Your task to perform on an android device: turn on sleep mode Image 0: 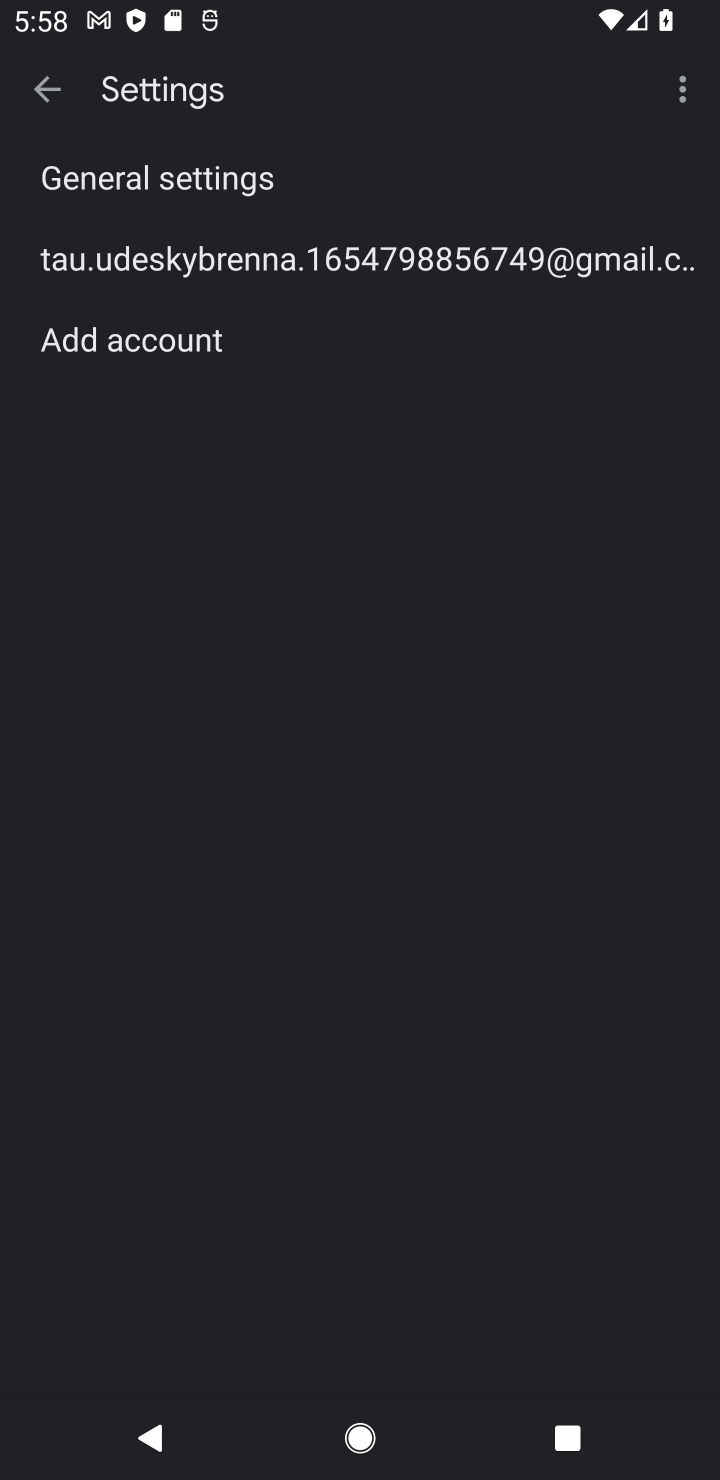
Step 0: press home button
Your task to perform on an android device: turn on sleep mode Image 1: 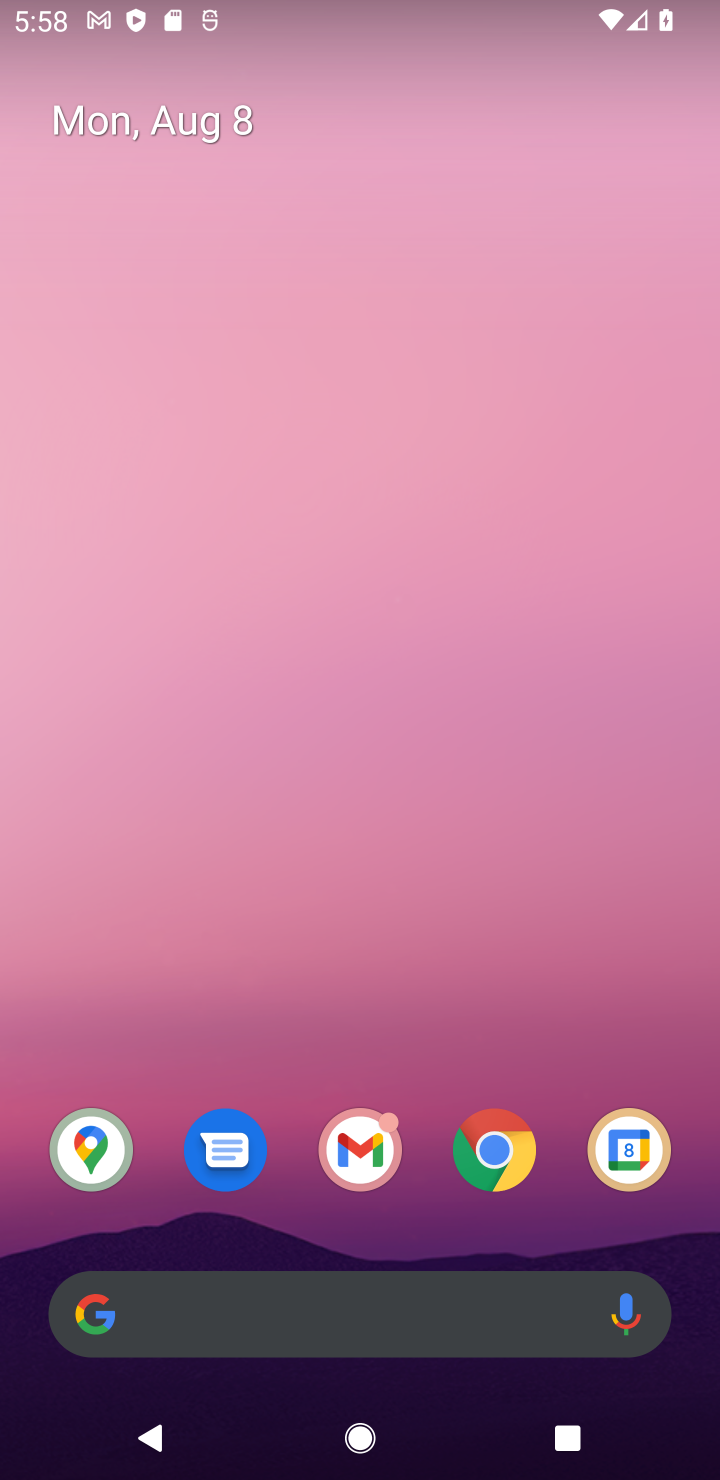
Step 1: drag from (427, 1248) to (464, 89)
Your task to perform on an android device: turn on sleep mode Image 2: 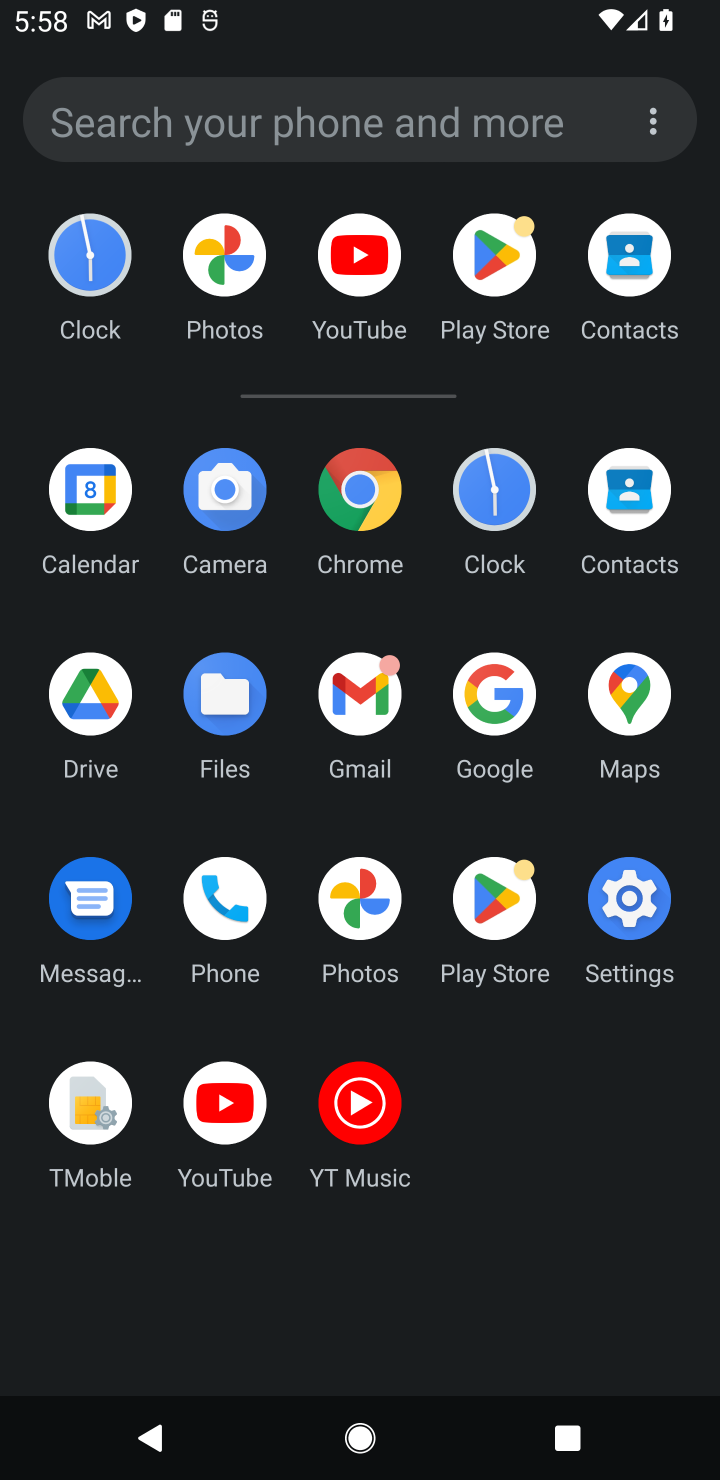
Step 2: click (649, 930)
Your task to perform on an android device: turn on sleep mode Image 3: 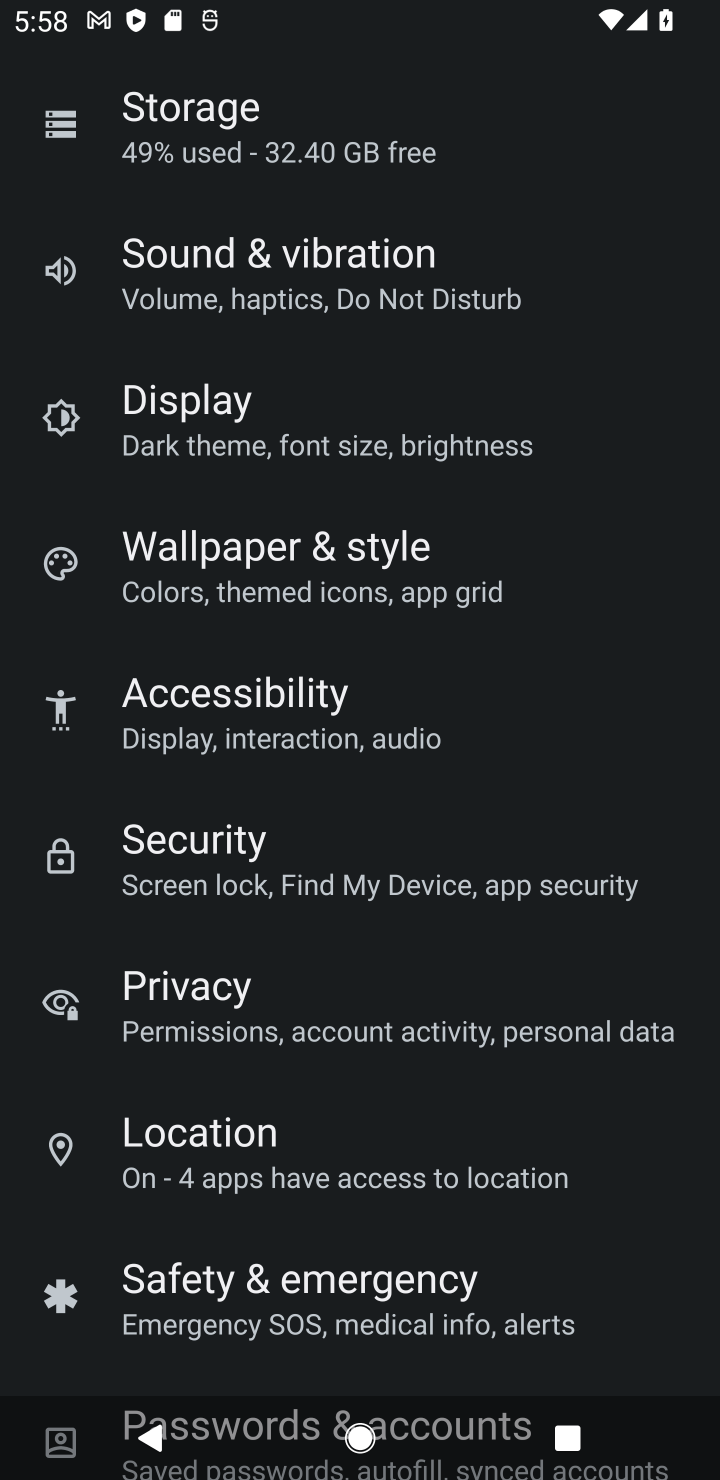
Step 3: task complete